Your task to perform on an android device: turn off location Image 0: 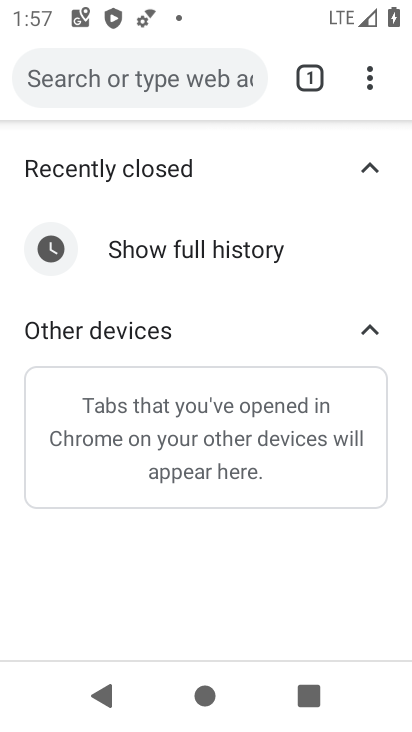
Step 0: press home button
Your task to perform on an android device: turn off location Image 1: 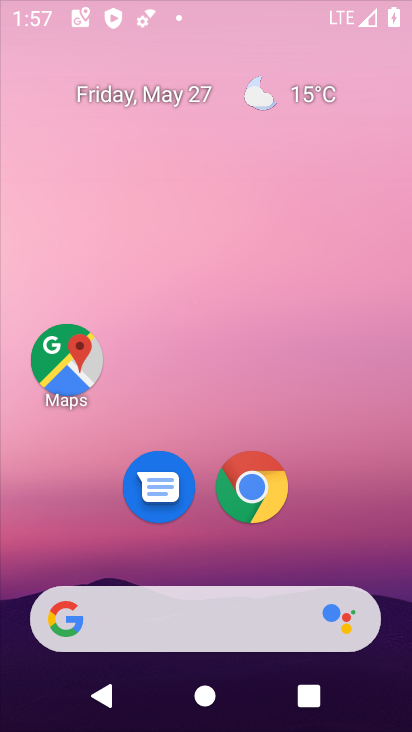
Step 1: drag from (265, 461) to (334, 84)
Your task to perform on an android device: turn off location Image 2: 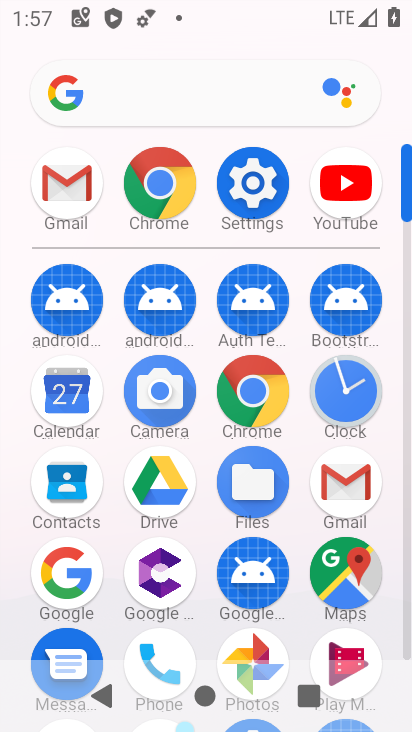
Step 2: click (252, 170)
Your task to perform on an android device: turn off location Image 3: 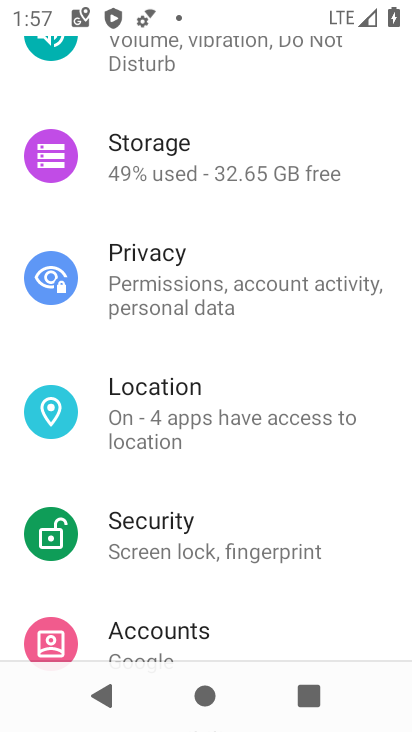
Step 3: drag from (217, 108) to (139, 633)
Your task to perform on an android device: turn off location Image 4: 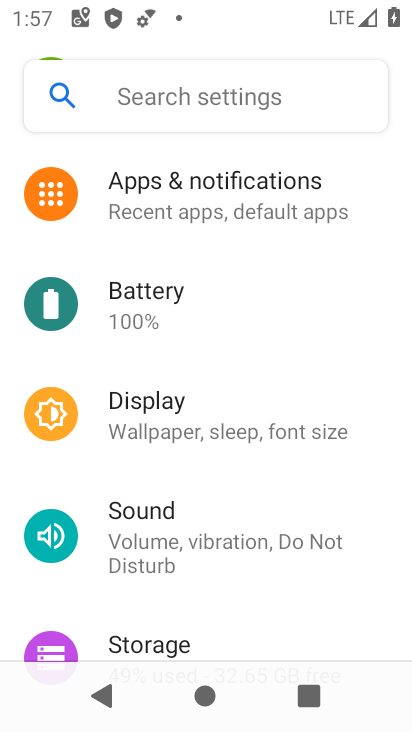
Step 4: drag from (228, 273) to (254, 73)
Your task to perform on an android device: turn off location Image 5: 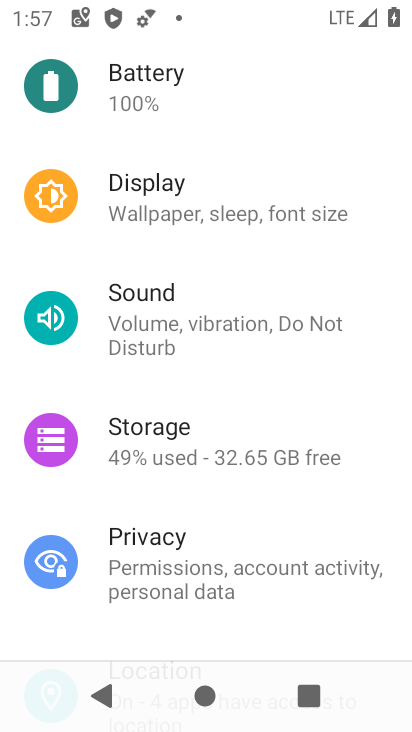
Step 5: drag from (240, 481) to (339, 58)
Your task to perform on an android device: turn off location Image 6: 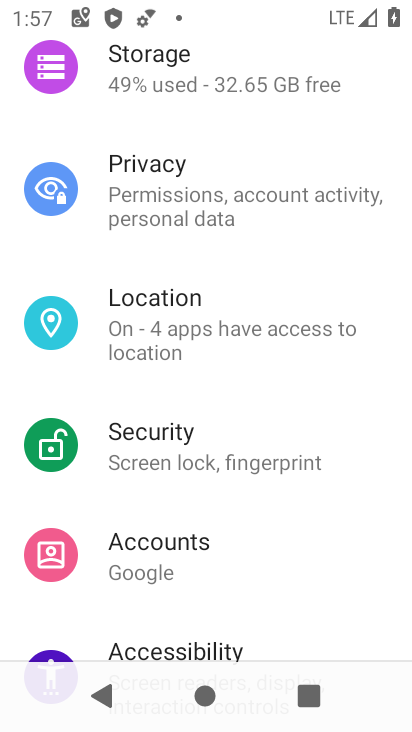
Step 6: click (238, 318)
Your task to perform on an android device: turn off location Image 7: 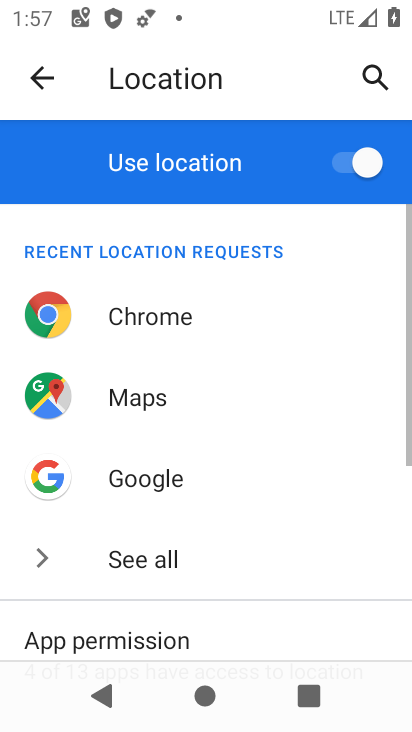
Step 7: click (362, 168)
Your task to perform on an android device: turn off location Image 8: 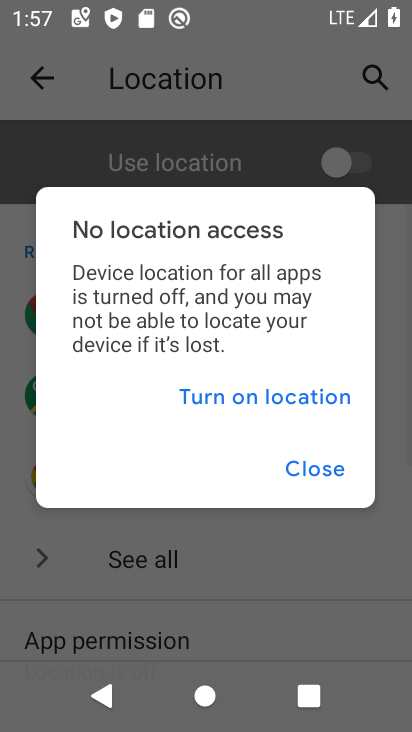
Step 8: task complete